Your task to perform on an android device: Open Chrome and go to the settings page Image 0: 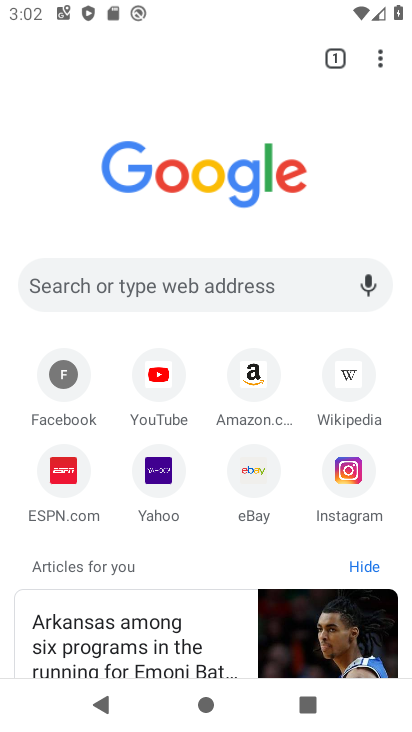
Step 0: click (379, 51)
Your task to perform on an android device: Open Chrome and go to the settings page Image 1: 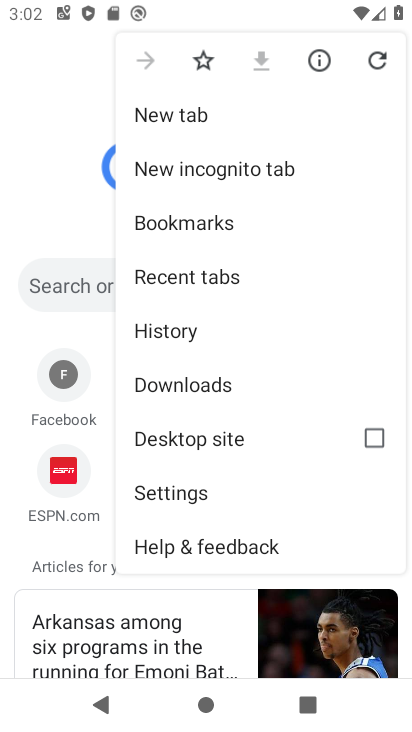
Step 1: click (170, 494)
Your task to perform on an android device: Open Chrome and go to the settings page Image 2: 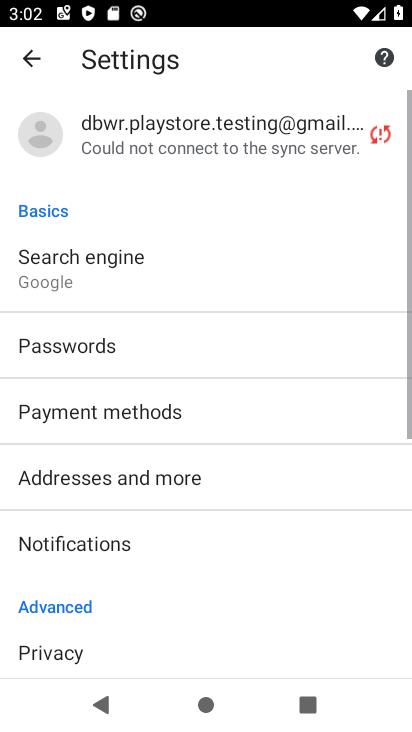
Step 2: task complete